Your task to perform on an android device: Show me popular videos on Youtube Image 0: 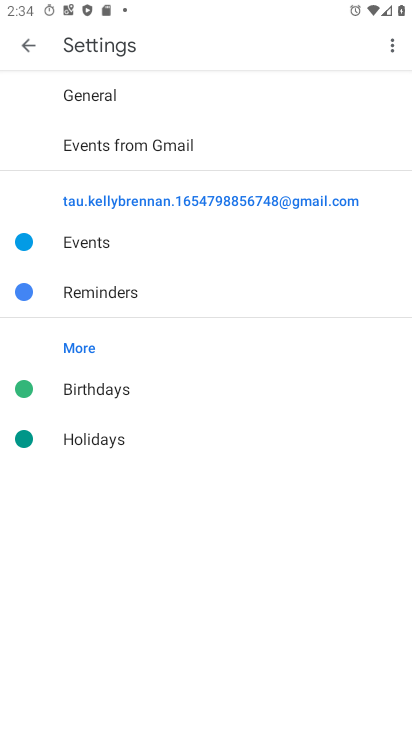
Step 0: press home button
Your task to perform on an android device: Show me popular videos on Youtube Image 1: 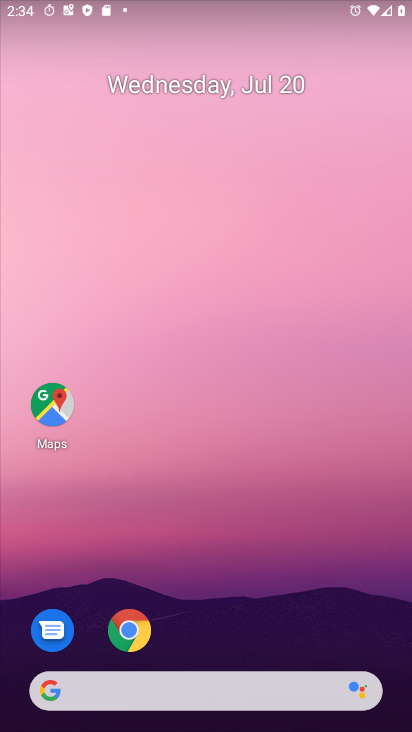
Step 1: drag from (195, 701) to (226, 51)
Your task to perform on an android device: Show me popular videos on Youtube Image 2: 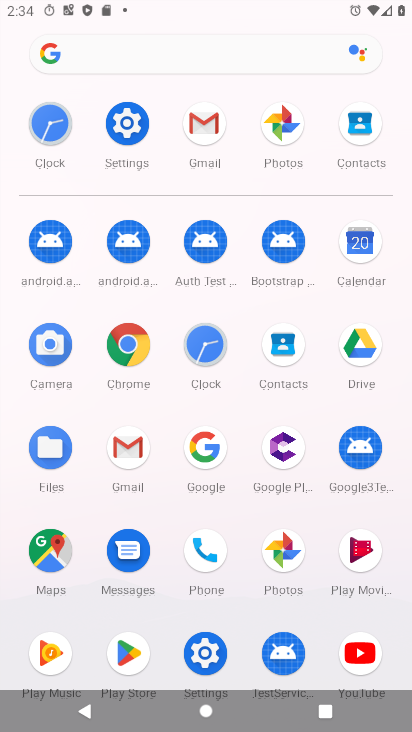
Step 2: click (358, 648)
Your task to perform on an android device: Show me popular videos on Youtube Image 3: 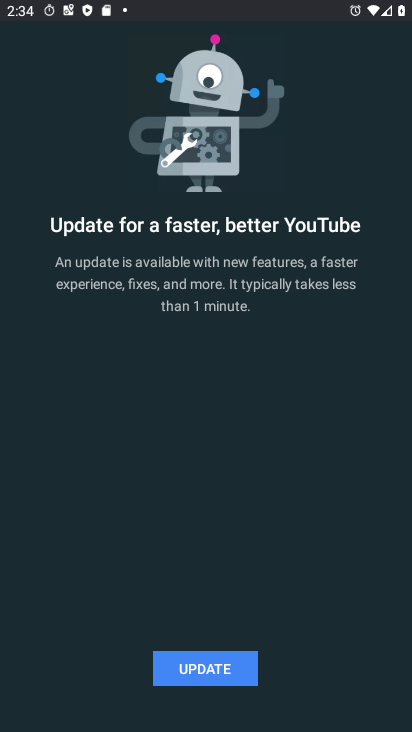
Step 3: click (230, 670)
Your task to perform on an android device: Show me popular videos on Youtube Image 4: 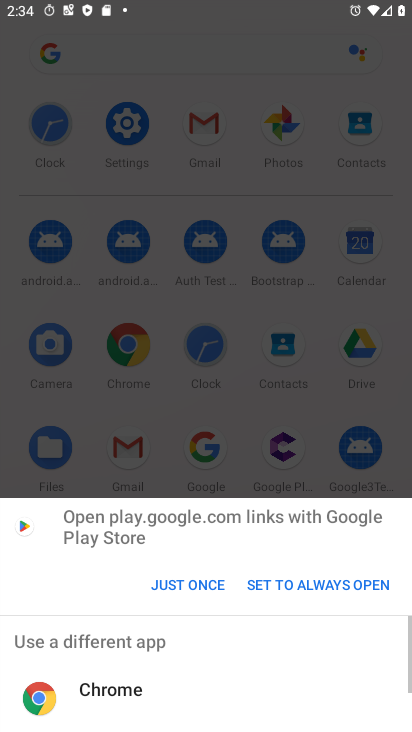
Step 4: click (193, 592)
Your task to perform on an android device: Show me popular videos on Youtube Image 5: 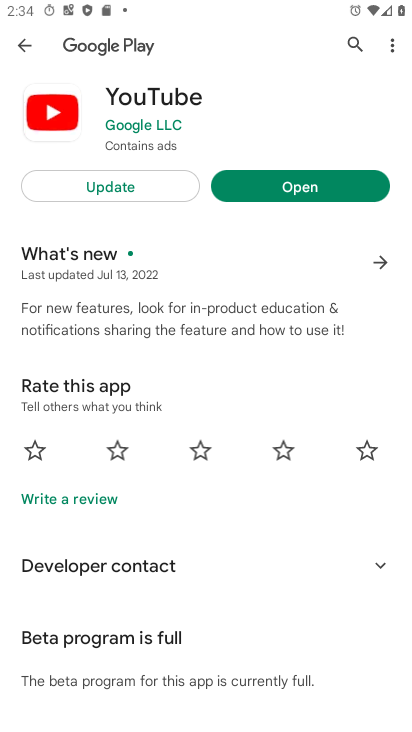
Step 5: click (150, 185)
Your task to perform on an android device: Show me popular videos on Youtube Image 6: 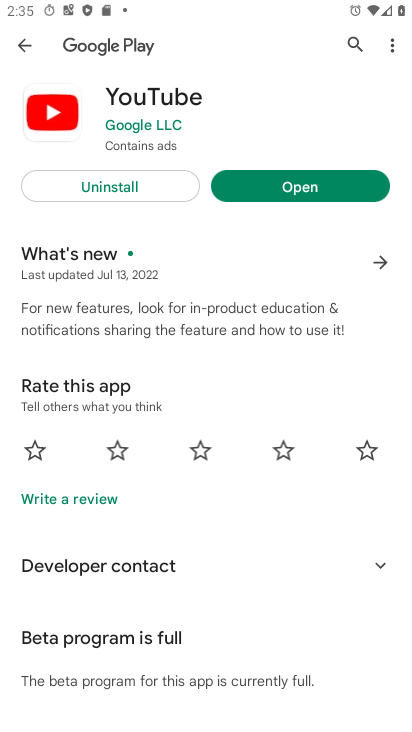
Step 6: click (338, 187)
Your task to perform on an android device: Show me popular videos on Youtube Image 7: 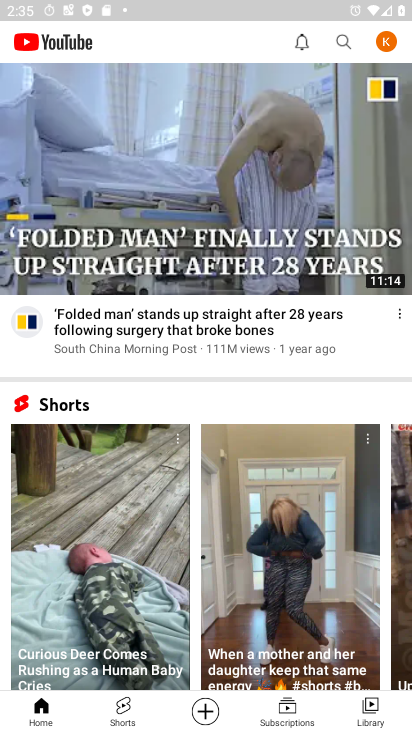
Step 7: task complete